Your task to perform on an android device: Show me productivity apps on the Play Store Image 0: 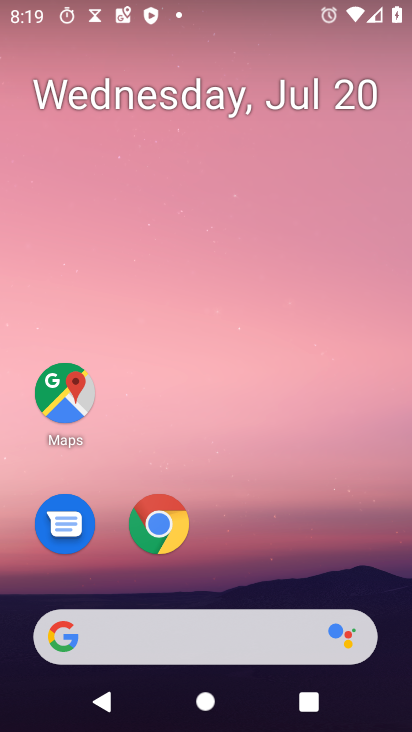
Step 0: drag from (220, 594) to (336, 159)
Your task to perform on an android device: Show me productivity apps on the Play Store Image 1: 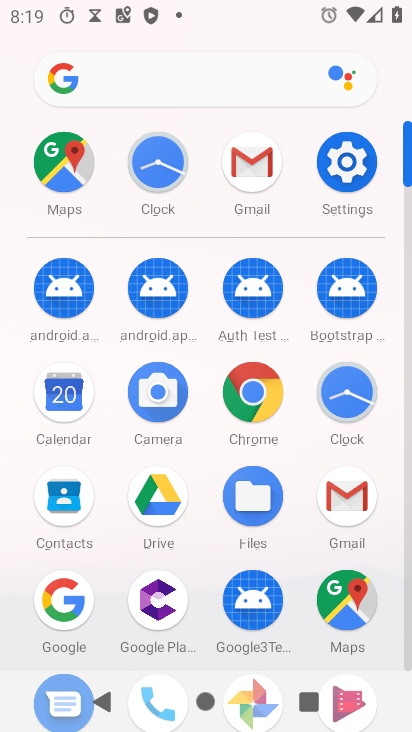
Step 1: drag from (211, 568) to (273, 131)
Your task to perform on an android device: Show me productivity apps on the Play Store Image 2: 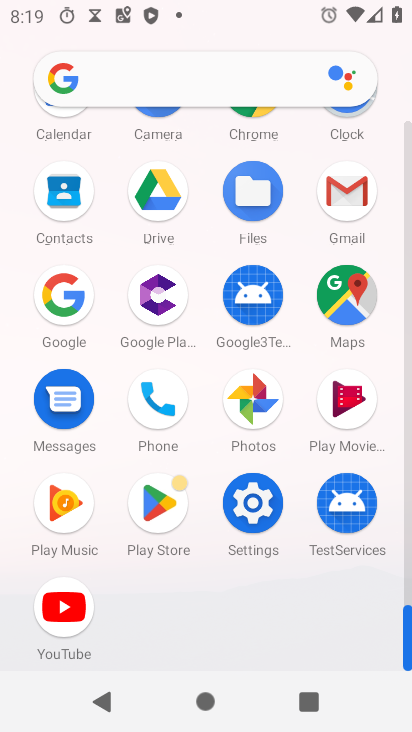
Step 2: click (160, 494)
Your task to perform on an android device: Show me productivity apps on the Play Store Image 3: 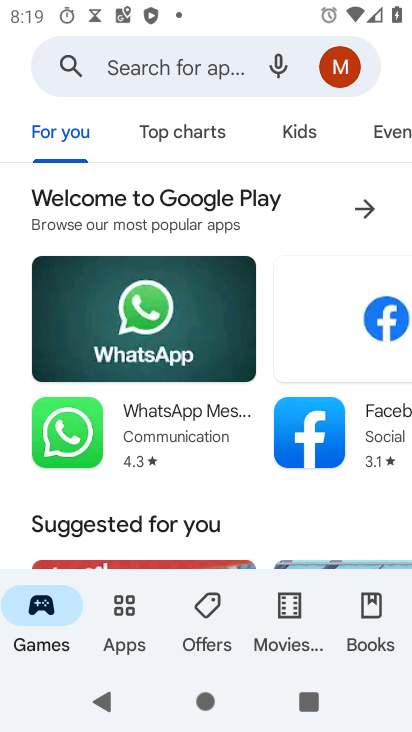
Step 3: click (123, 610)
Your task to perform on an android device: Show me productivity apps on the Play Store Image 4: 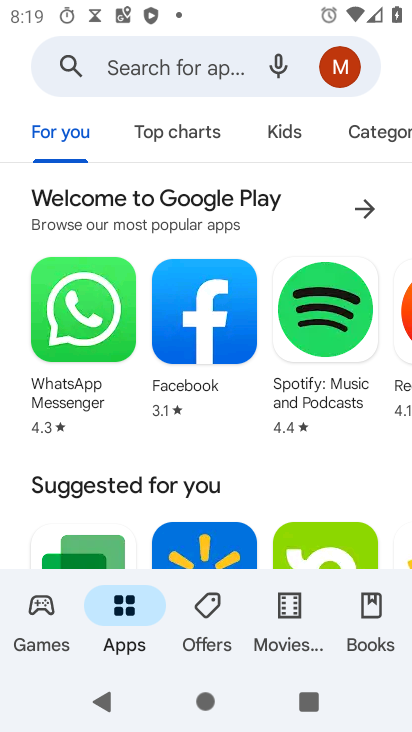
Step 4: click (370, 127)
Your task to perform on an android device: Show me productivity apps on the Play Store Image 5: 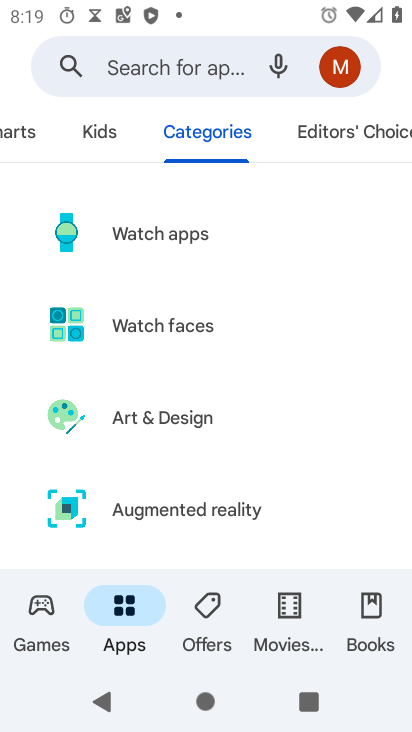
Step 5: drag from (293, 523) to (385, 100)
Your task to perform on an android device: Show me productivity apps on the Play Store Image 6: 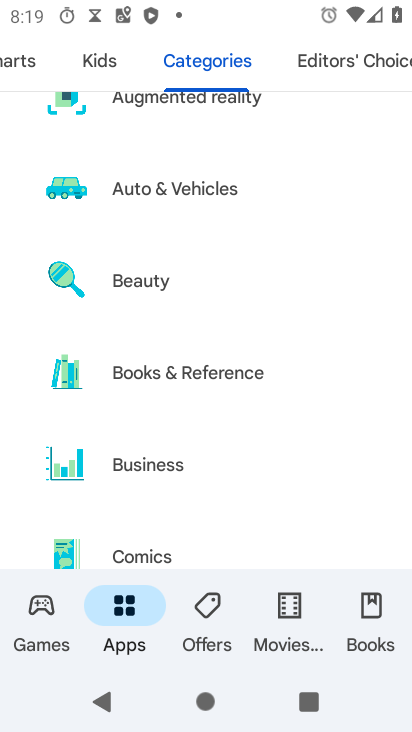
Step 6: drag from (261, 533) to (335, 39)
Your task to perform on an android device: Show me productivity apps on the Play Store Image 7: 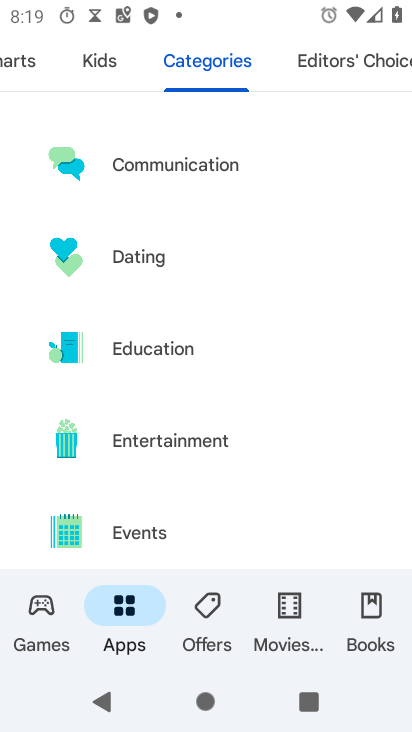
Step 7: drag from (287, 486) to (380, 35)
Your task to perform on an android device: Show me productivity apps on the Play Store Image 8: 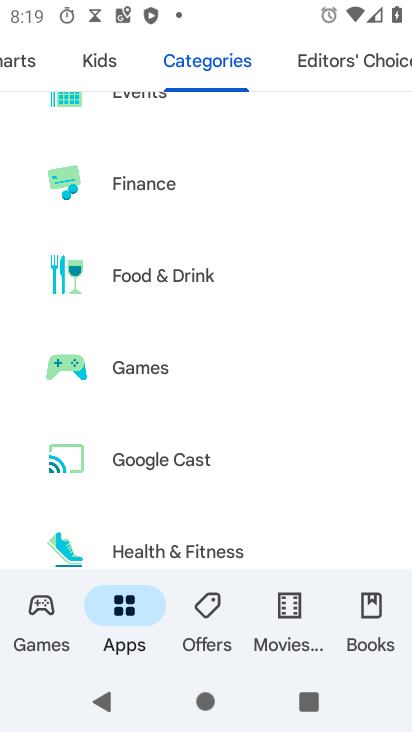
Step 8: drag from (267, 488) to (317, 73)
Your task to perform on an android device: Show me productivity apps on the Play Store Image 9: 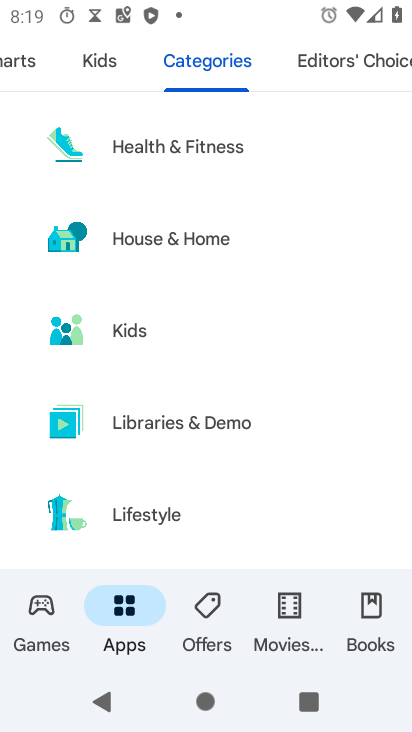
Step 9: drag from (327, 513) to (348, 140)
Your task to perform on an android device: Show me productivity apps on the Play Store Image 10: 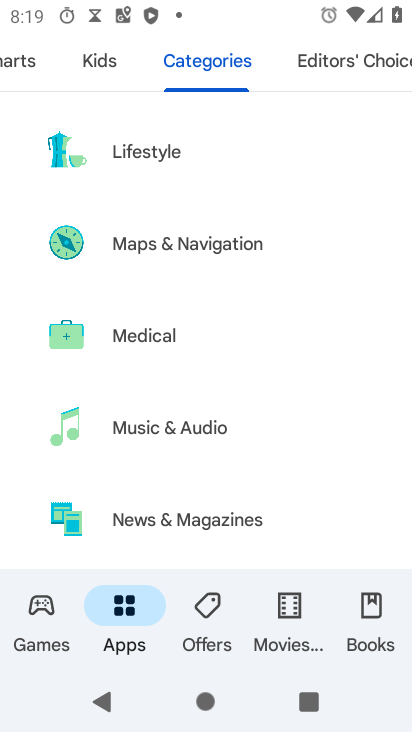
Step 10: drag from (286, 486) to (287, 126)
Your task to perform on an android device: Show me productivity apps on the Play Store Image 11: 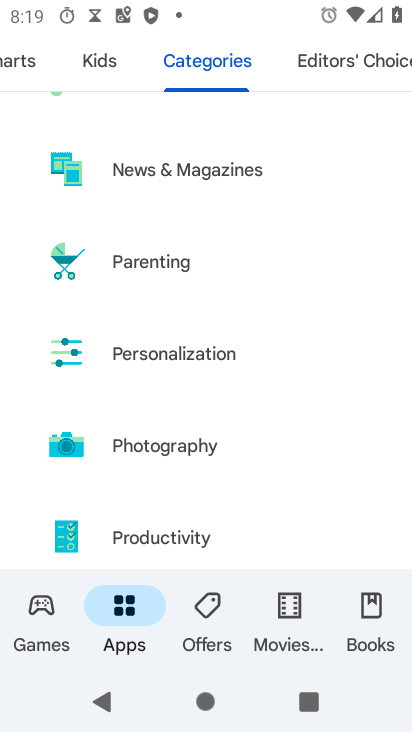
Step 11: click (193, 540)
Your task to perform on an android device: Show me productivity apps on the Play Store Image 12: 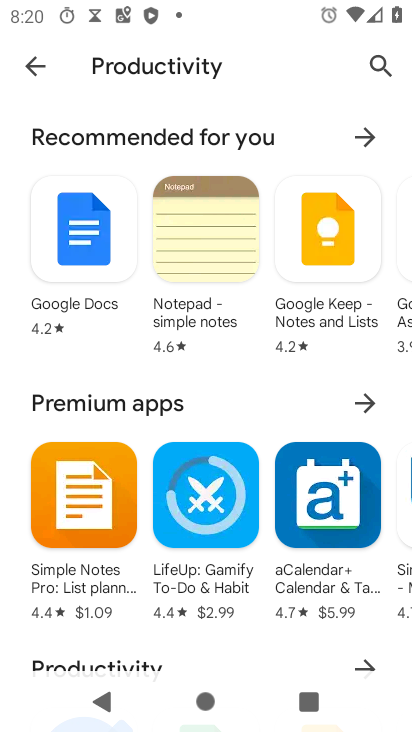
Step 12: task complete